Your task to perform on an android device: turn off location Image 0: 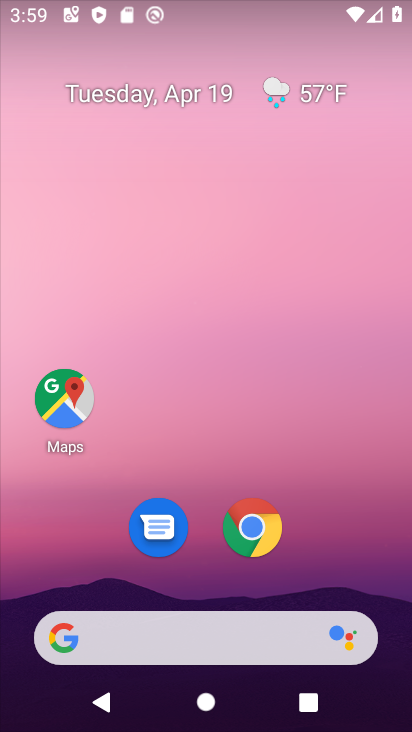
Step 0: drag from (378, 592) to (338, 70)
Your task to perform on an android device: turn off location Image 1: 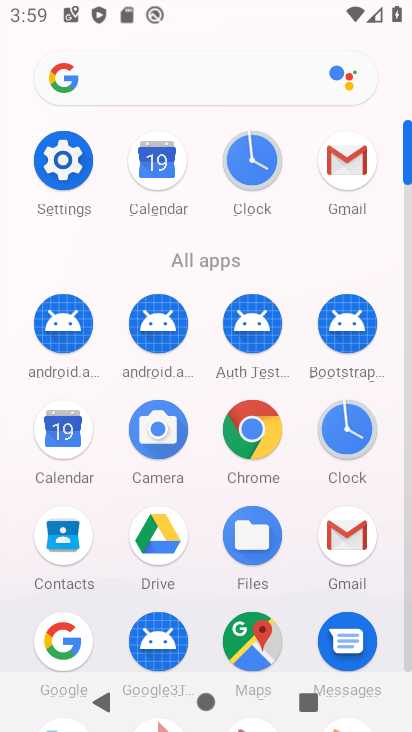
Step 1: click (409, 660)
Your task to perform on an android device: turn off location Image 2: 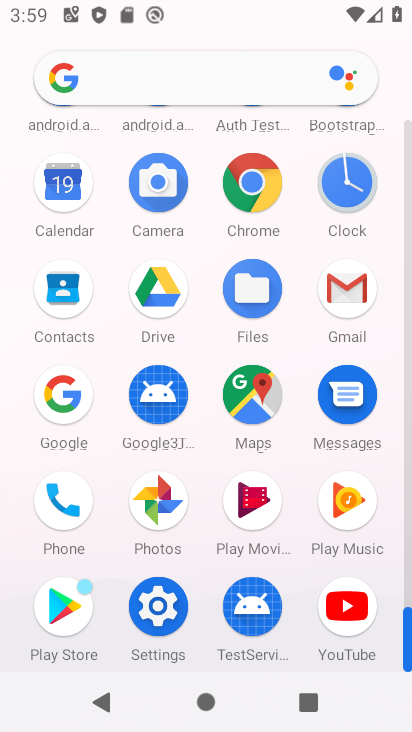
Step 2: click (154, 608)
Your task to perform on an android device: turn off location Image 3: 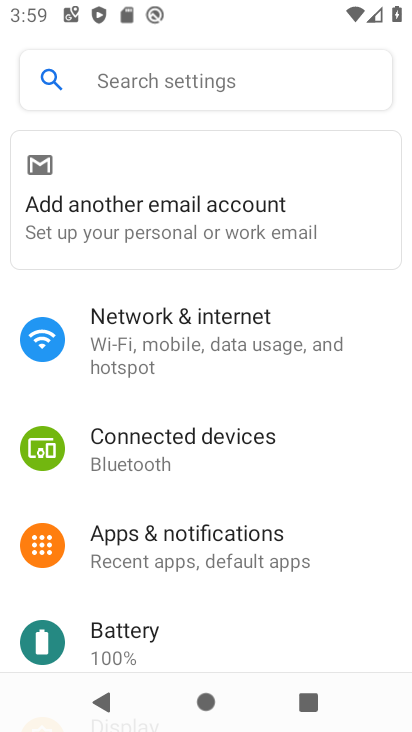
Step 3: drag from (322, 582) to (353, 232)
Your task to perform on an android device: turn off location Image 4: 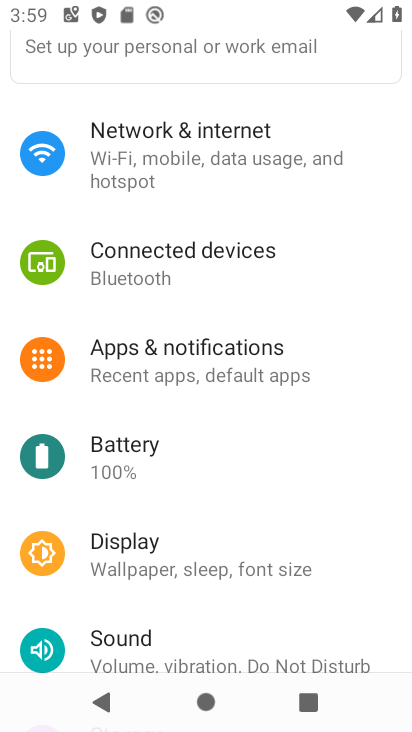
Step 4: drag from (320, 506) to (373, 149)
Your task to perform on an android device: turn off location Image 5: 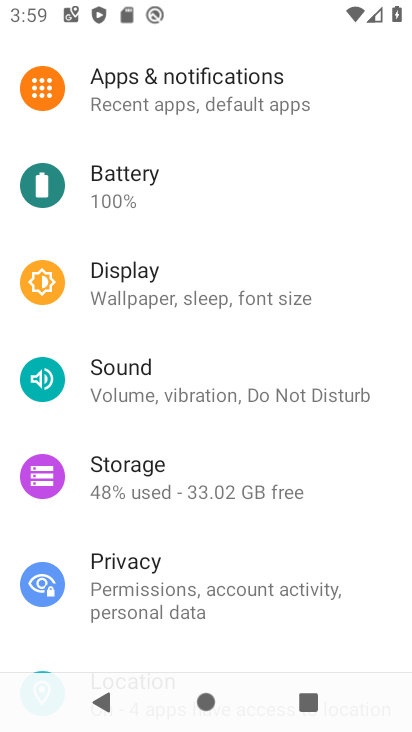
Step 5: drag from (326, 559) to (366, 282)
Your task to perform on an android device: turn off location Image 6: 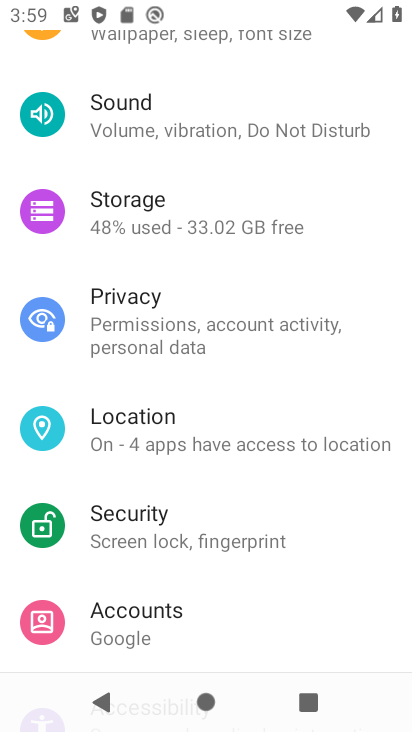
Step 6: click (136, 432)
Your task to perform on an android device: turn off location Image 7: 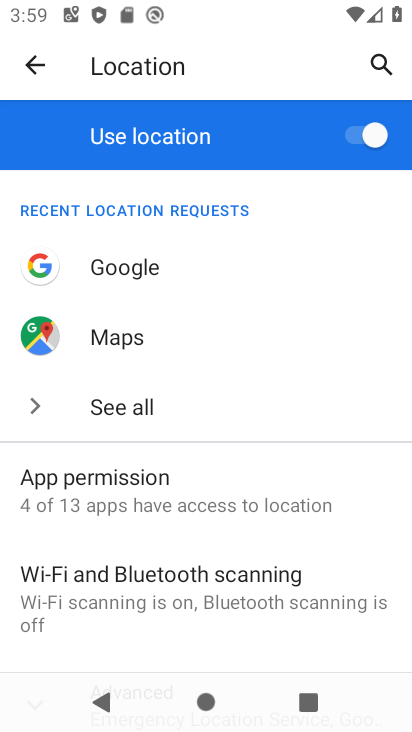
Step 7: drag from (341, 566) to (349, 267)
Your task to perform on an android device: turn off location Image 8: 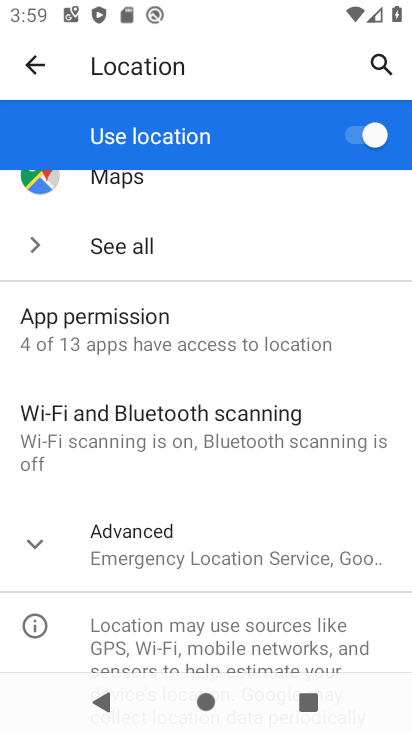
Step 8: click (30, 548)
Your task to perform on an android device: turn off location Image 9: 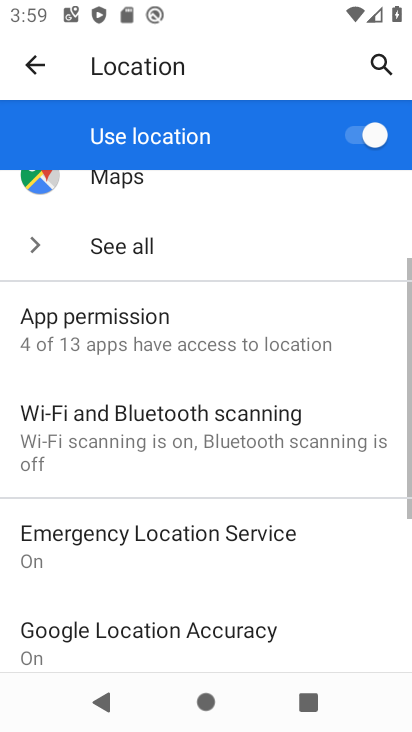
Step 9: click (356, 130)
Your task to perform on an android device: turn off location Image 10: 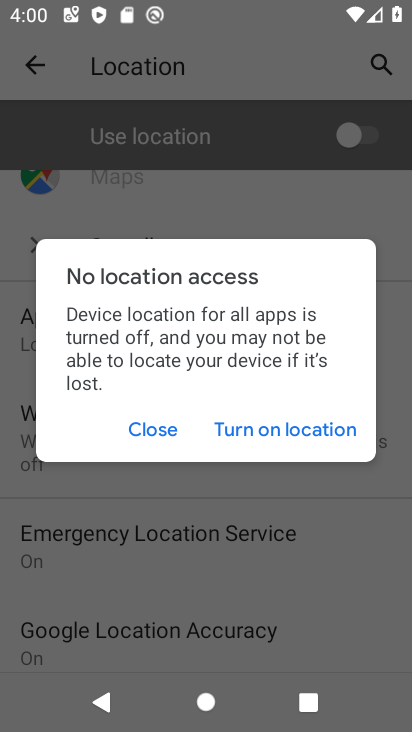
Step 10: task complete